Your task to perform on an android device: When is my next appointment? Image 0: 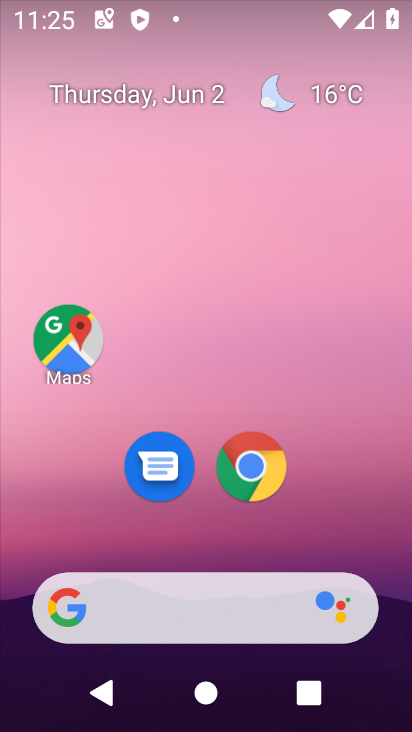
Step 0: drag from (220, 546) to (233, 140)
Your task to perform on an android device: When is my next appointment? Image 1: 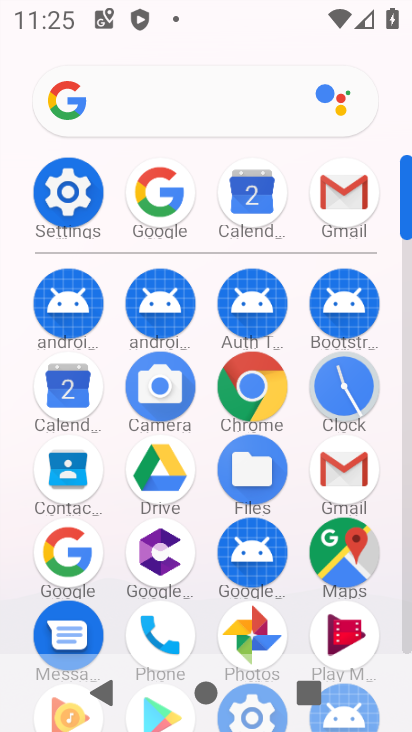
Step 1: click (237, 197)
Your task to perform on an android device: When is my next appointment? Image 2: 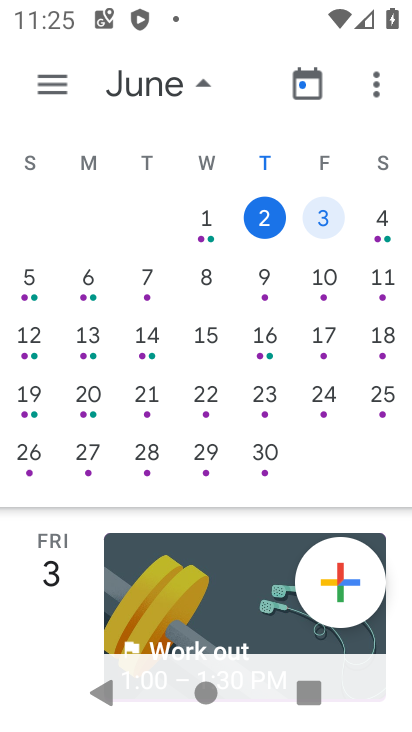
Step 2: task complete